Your task to perform on an android device: open app "Speedtest by Ookla" (install if not already installed), go to login, and select forgot password Image 0: 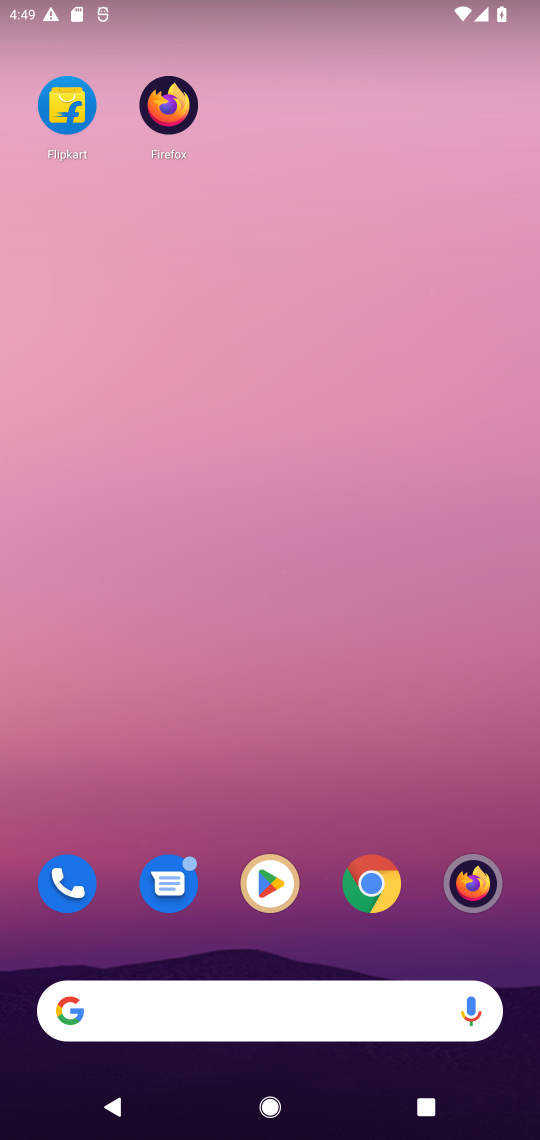
Step 0: drag from (373, 934) to (429, 528)
Your task to perform on an android device: open app "Speedtest by Ookla" (install if not already installed), go to login, and select forgot password Image 1: 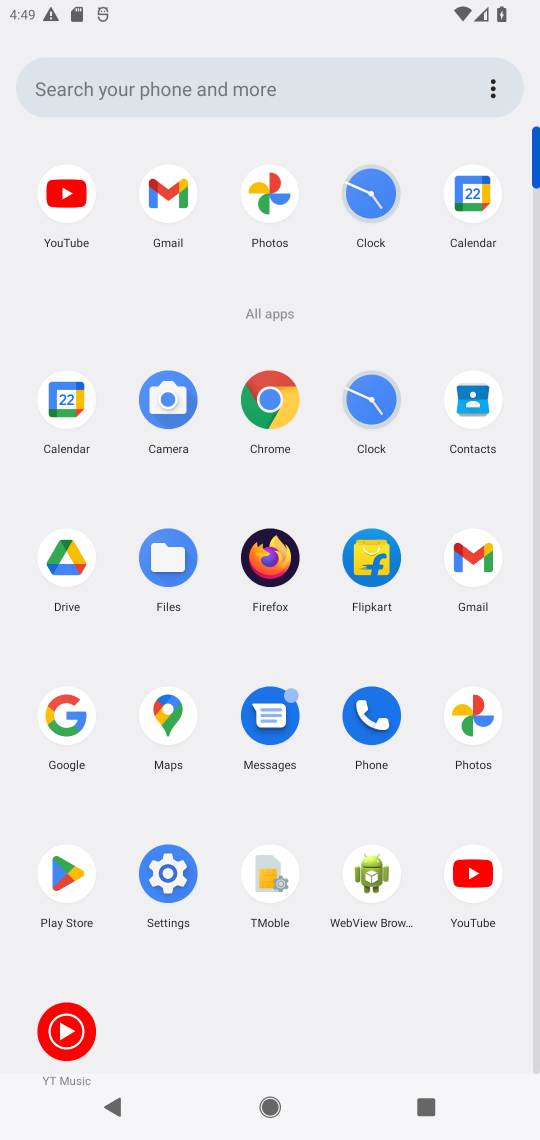
Step 1: click (79, 868)
Your task to perform on an android device: open app "Speedtest by Ookla" (install if not already installed), go to login, and select forgot password Image 2: 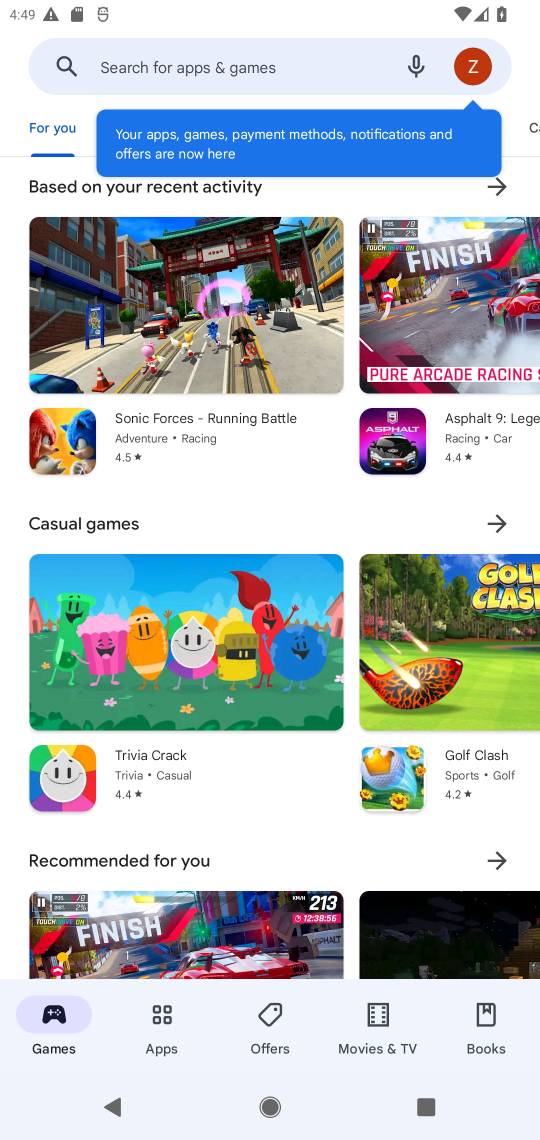
Step 2: type "Speedtest by Ookla"
Your task to perform on an android device: open app "Speedtest by Ookla" (install if not already installed), go to login, and select forgot password Image 3: 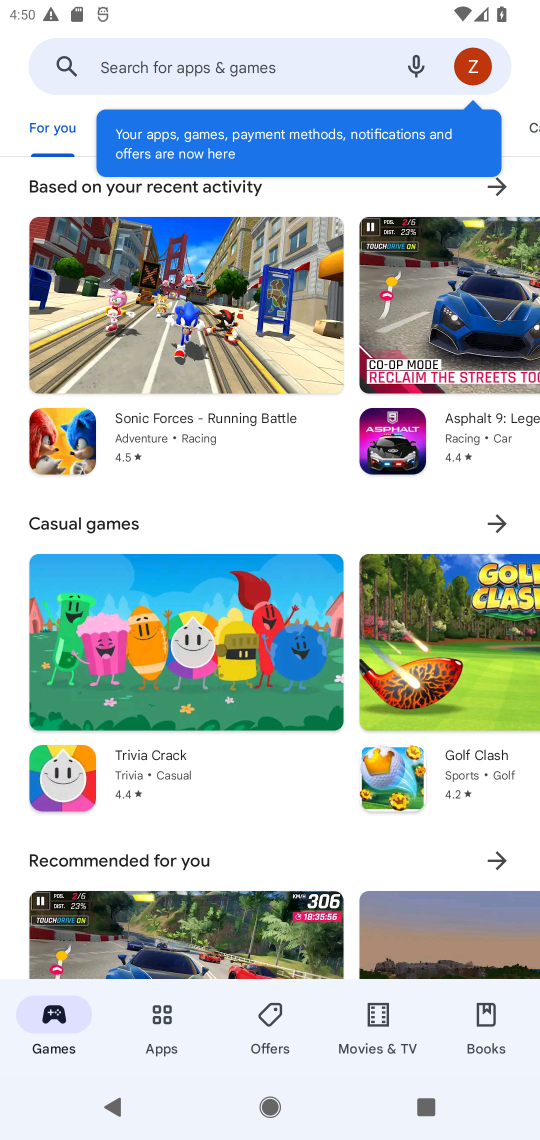
Step 3: click (136, 66)
Your task to perform on an android device: open app "Speedtest by Ookla" (install if not already installed), go to login, and select forgot password Image 4: 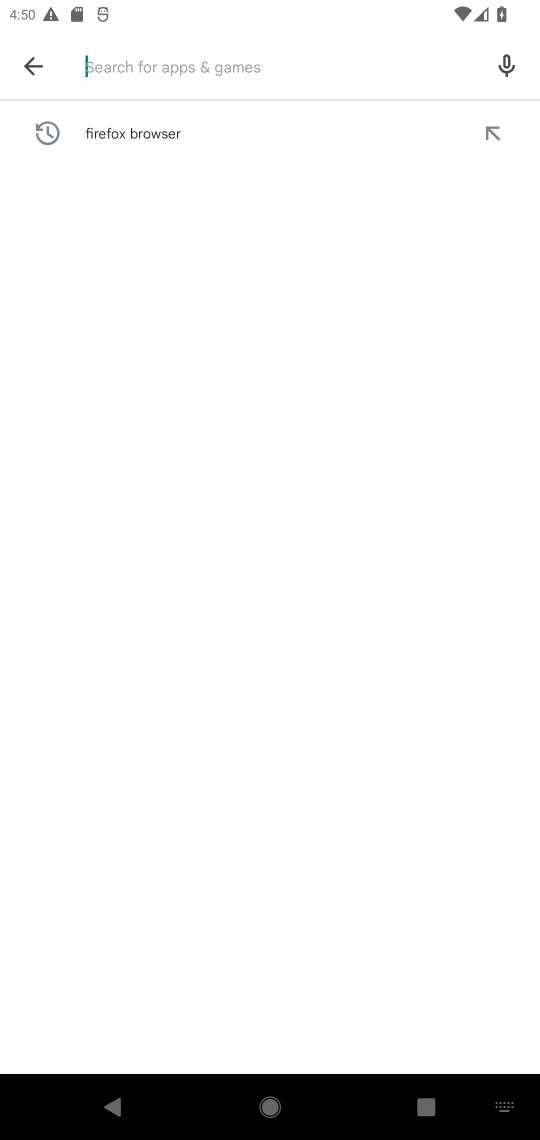
Step 4: type "Speedtest by Ookla"
Your task to perform on an android device: open app "Speedtest by Ookla" (install if not already installed), go to login, and select forgot password Image 5: 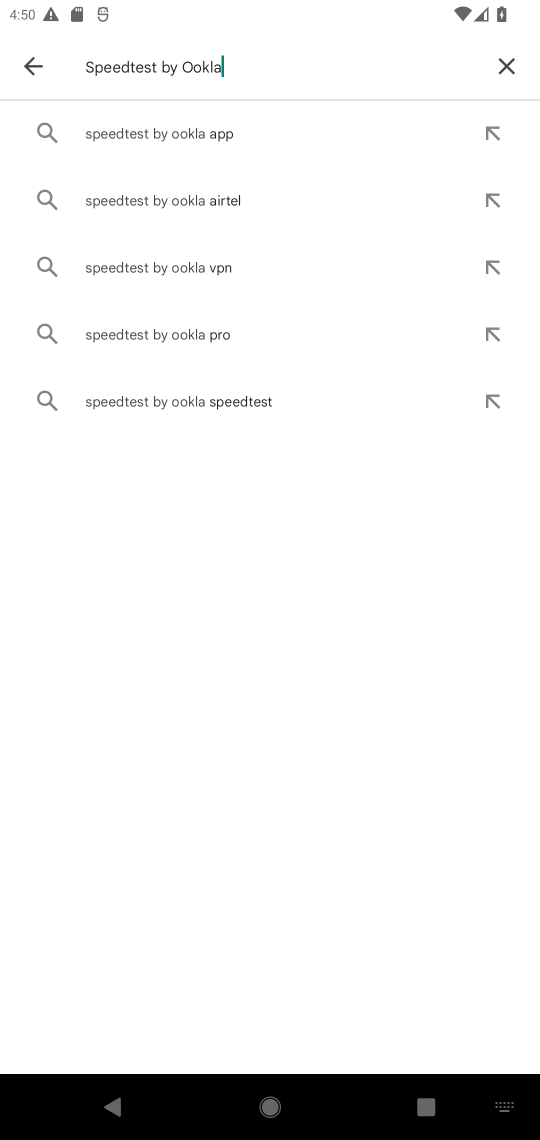
Step 5: click (192, 146)
Your task to perform on an android device: open app "Speedtest by Ookla" (install if not already installed), go to login, and select forgot password Image 6: 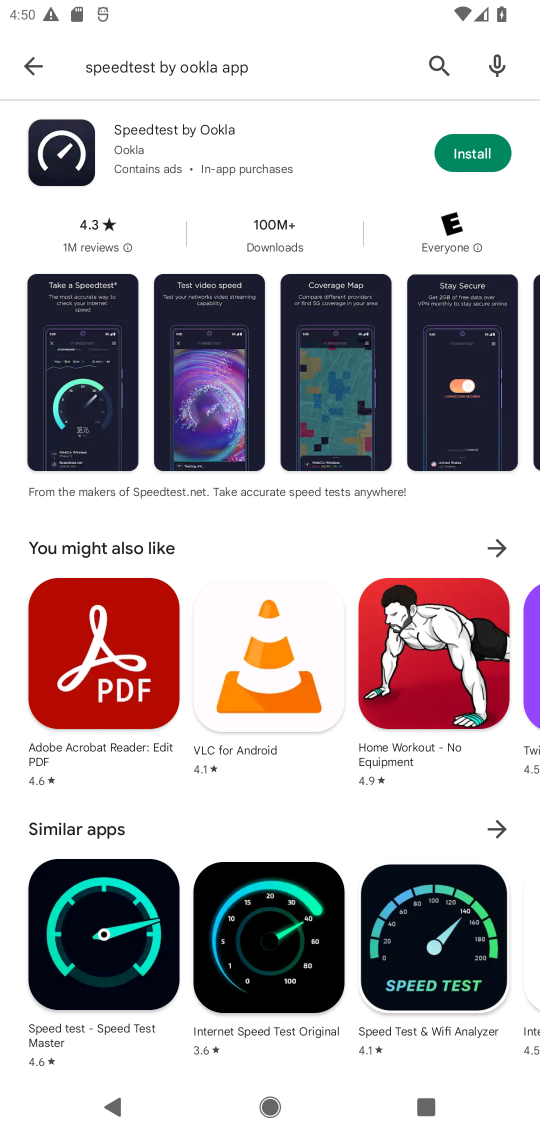
Step 6: click (494, 155)
Your task to perform on an android device: open app "Speedtest by Ookla" (install if not already installed), go to login, and select forgot password Image 7: 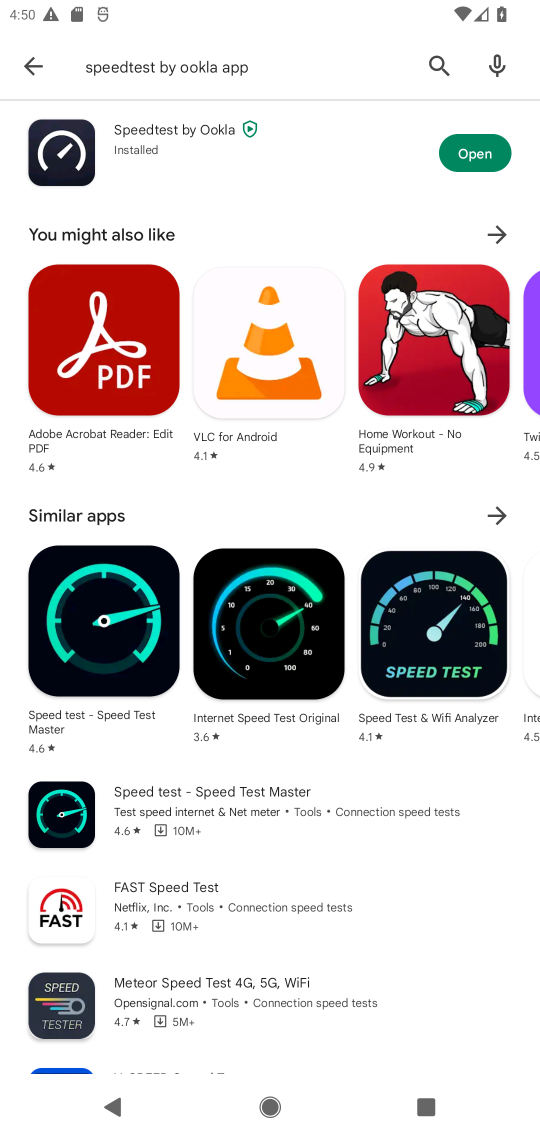
Step 7: click (459, 163)
Your task to perform on an android device: open app "Speedtest by Ookla" (install if not already installed), go to login, and select forgot password Image 8: 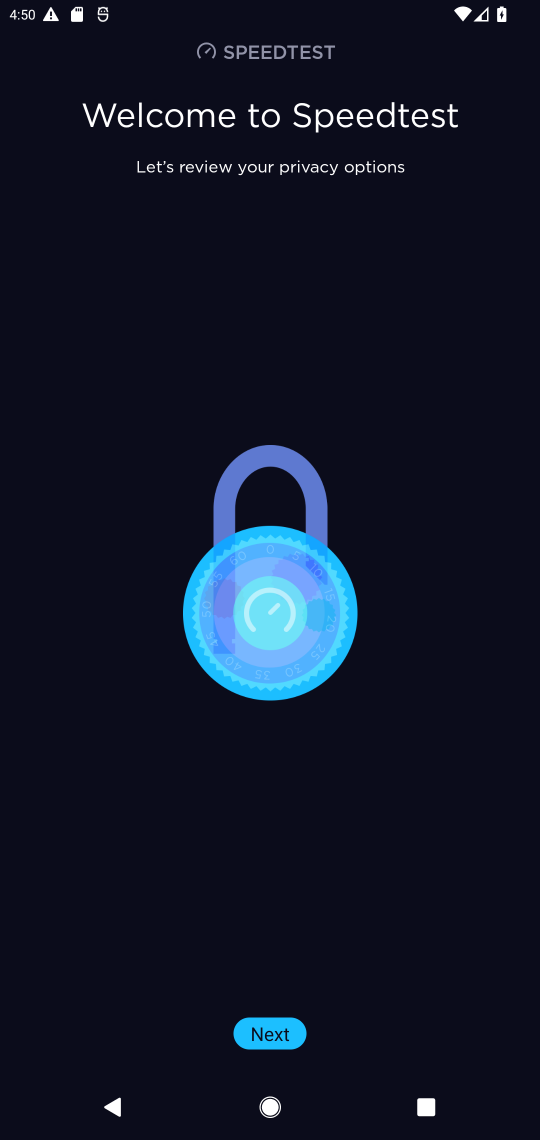
Step 8: task complete